Your task to perform on an android device: Open Reddit.com Image 0: 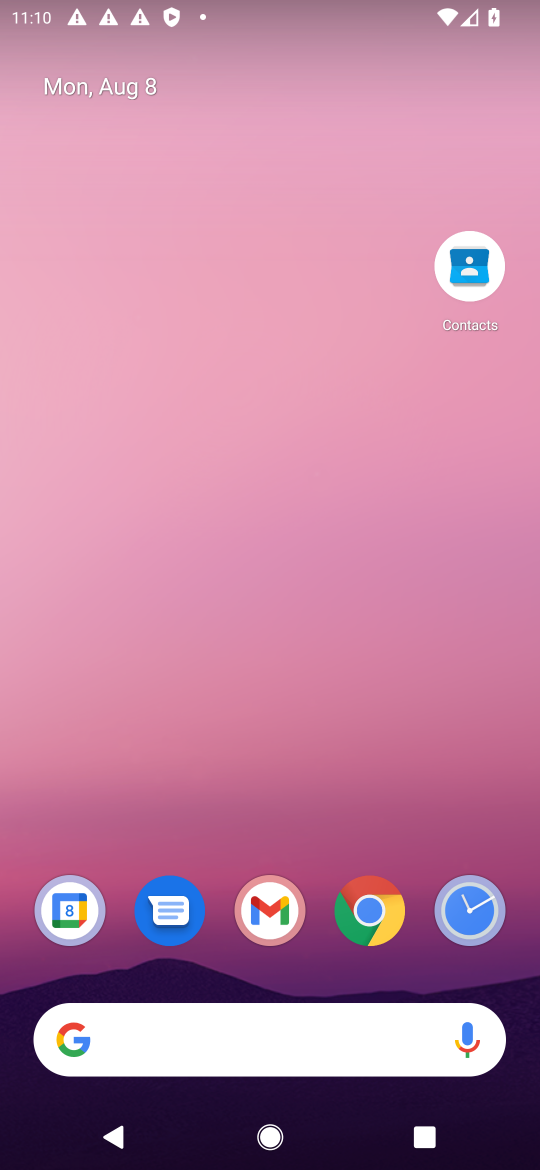
Step 0: click (375, 928)
Your task to perform on an android device: Open Reddit.com Image 1: 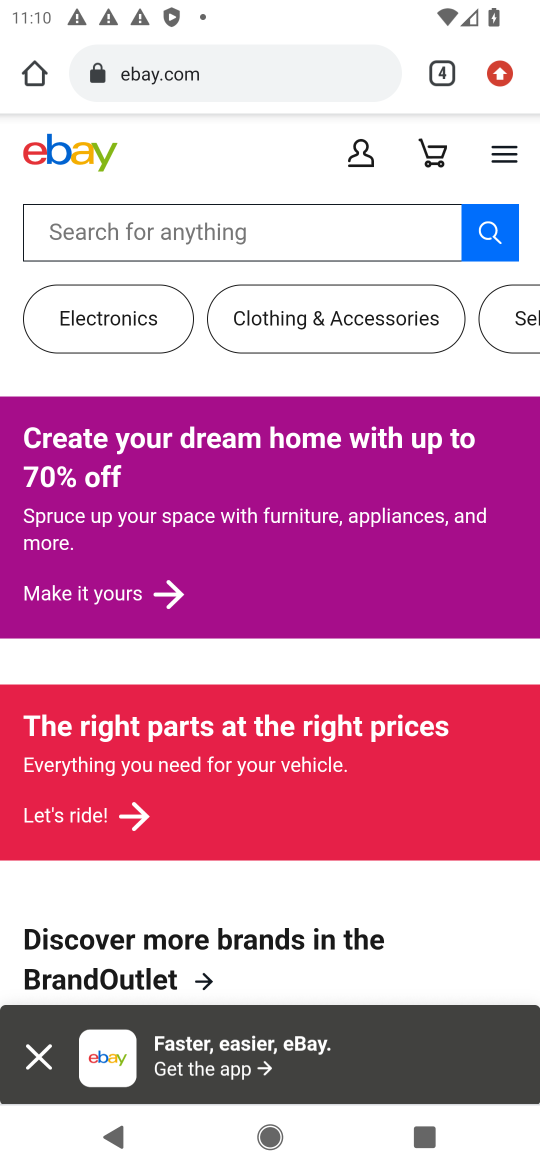
Step 1: click (441, 73)
Your task to perform on an android device: Open Reddit.com Image 2: 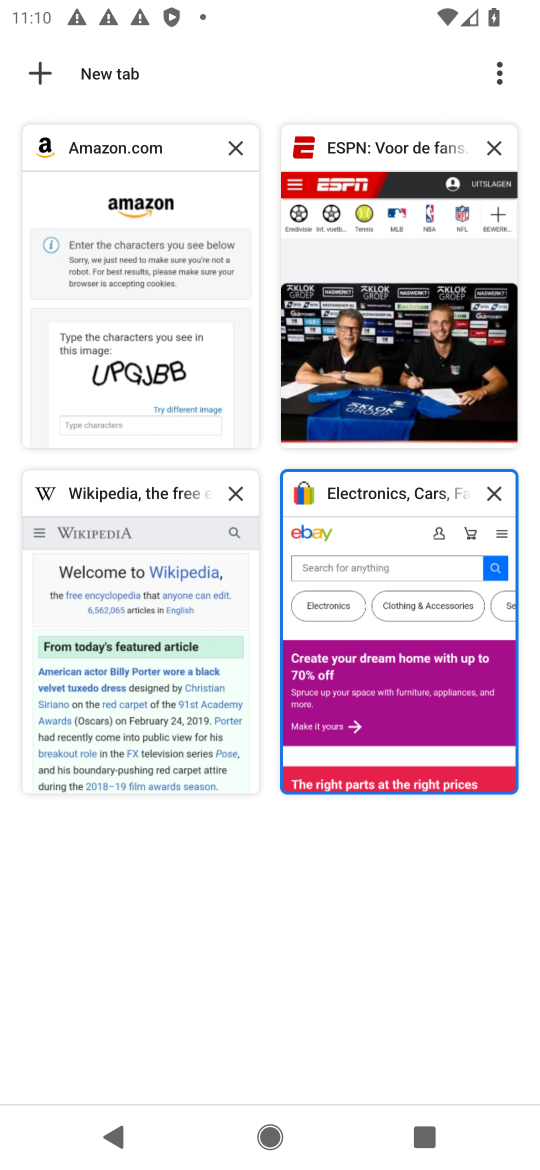
Step 2: click (41, 84)
Your task to perform on an android device: Open Reddit.com Image 3: 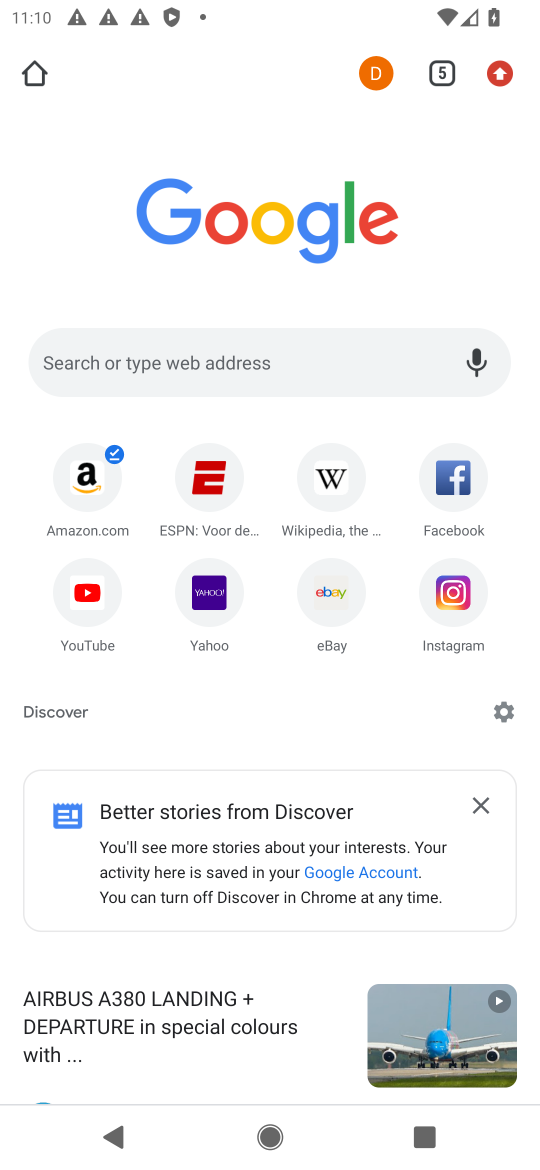
Step 3: click (287, 385)
Your task to perform on an android device: Open Reddit.com Image 4: 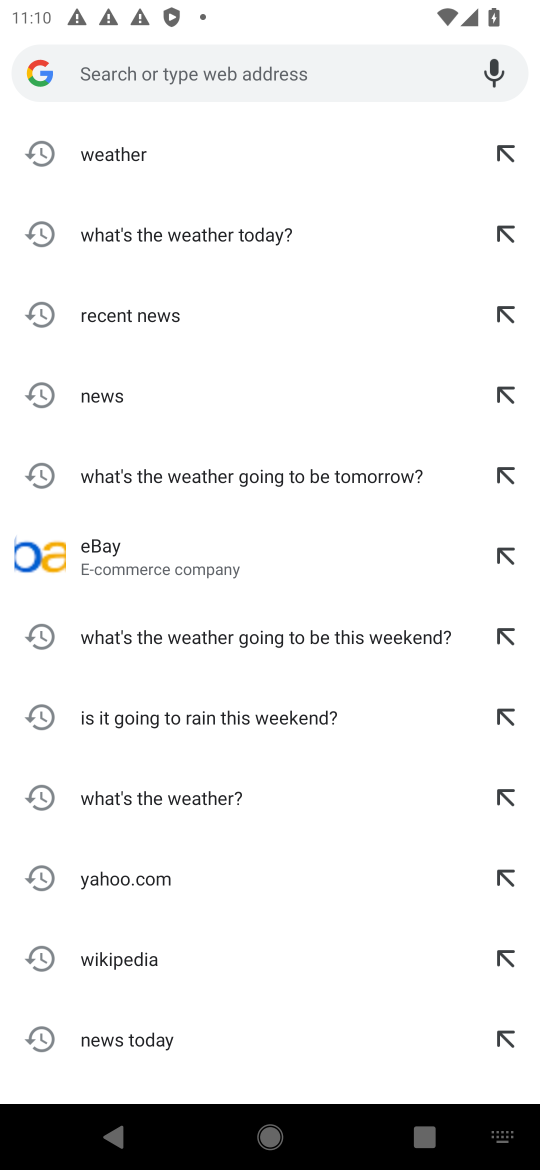
Step 4: type "Reddit.com"
Your task to perform on an android device: Open Reddit.com Image 5: 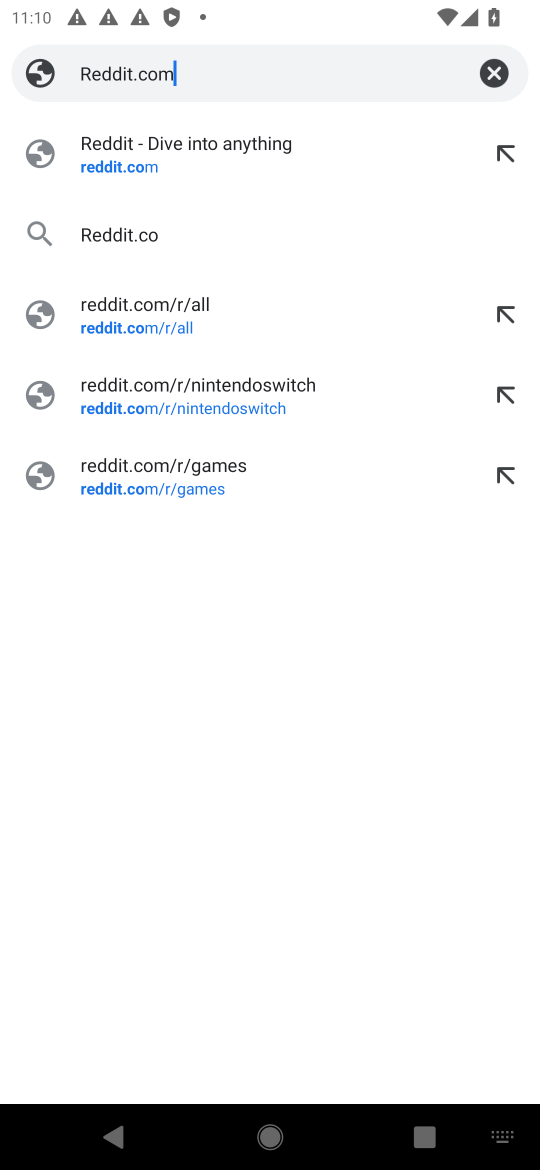
Step 5: type ""
Your task to perform on an android device: Open Reddit.com Image 6: 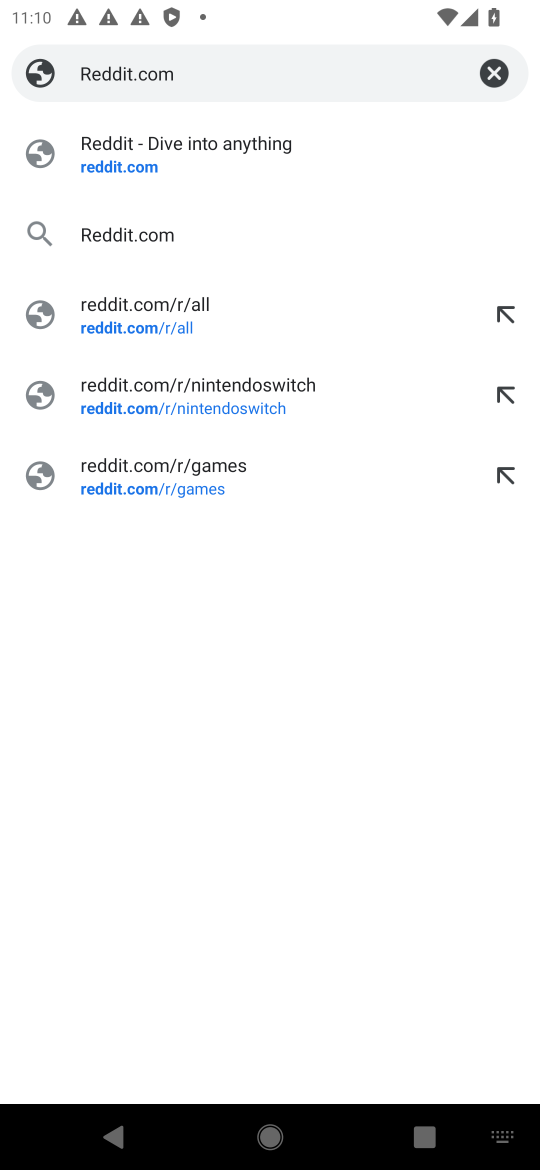
Step 6: click (122, 177)
Your task to perform on an android device: Open Reddit.com Image 7: 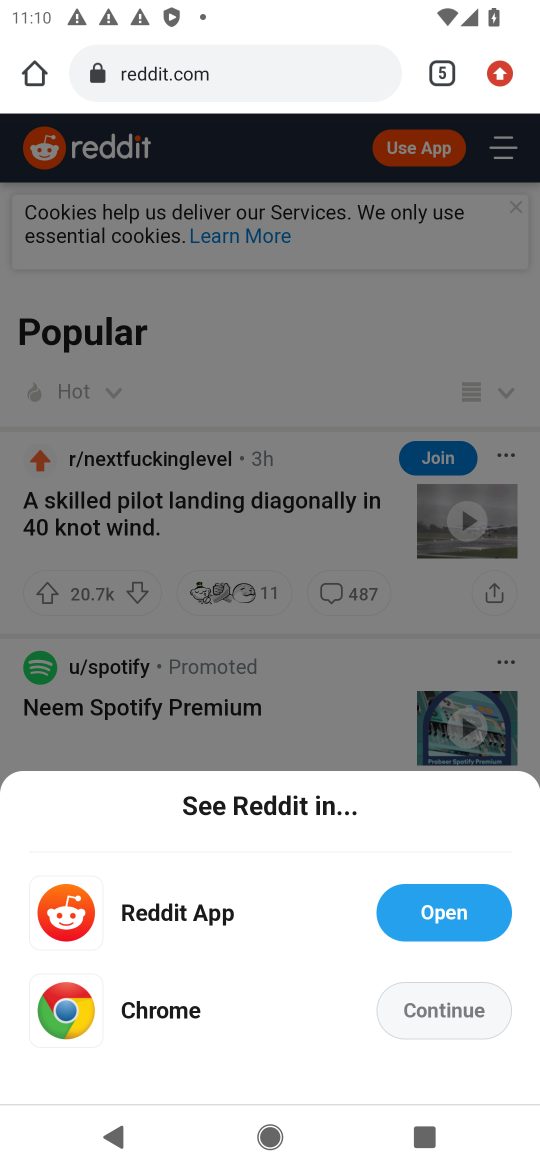
Step 7: task complete